Your task to perform on an android device: open chrome privacy settings Image 0: 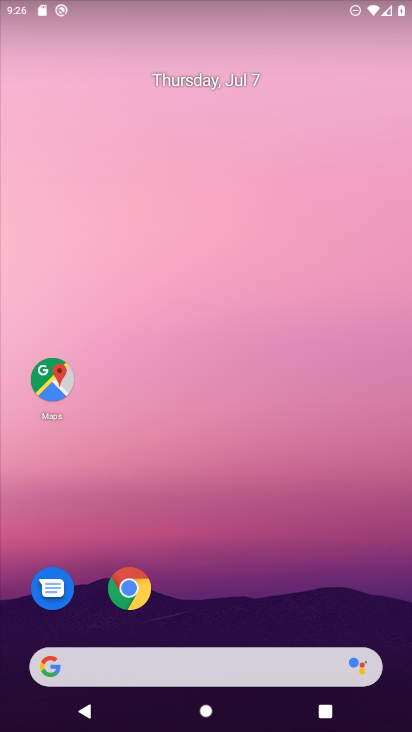
Step 0: click (139, 587)
Your task to perform on an android device: open chrome privacy settings Image 1: 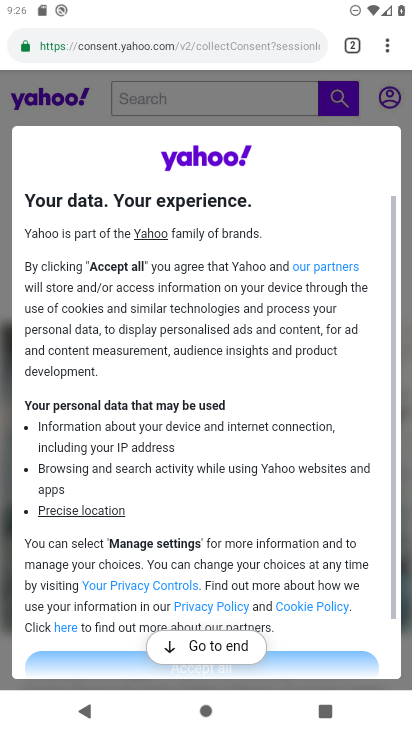
Step 1: click (396, 51)
Your task to perform on an android device: open chrome privacy settings Image 2: 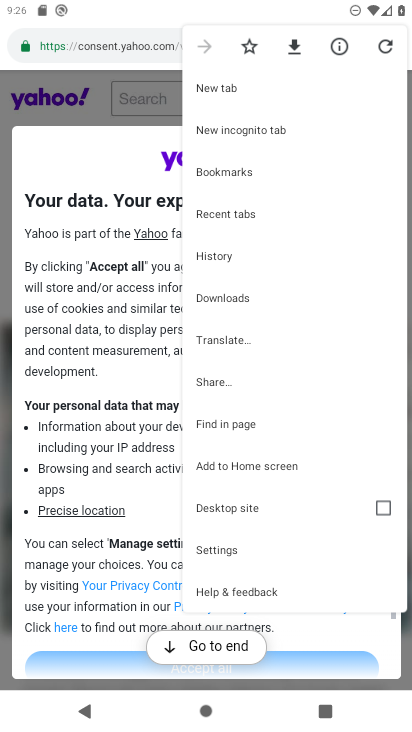
Step 2: click (240, 540)
Your task to perform on an android device: open chrome privacy settings Image 3: 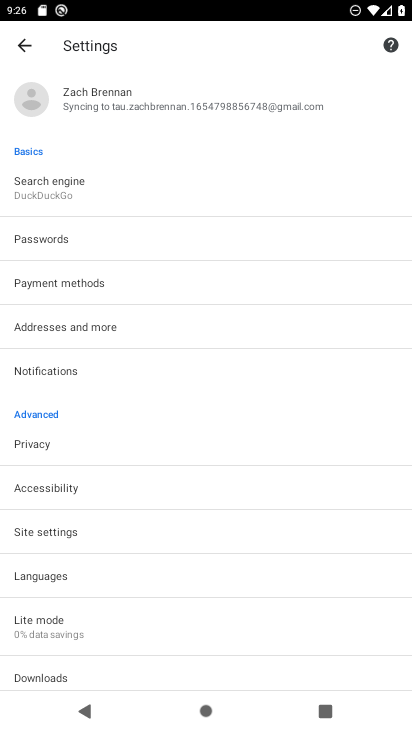
Step 3: click (93, 441)
Your task to perform on an android device: open chrome privacy settings Image 4: 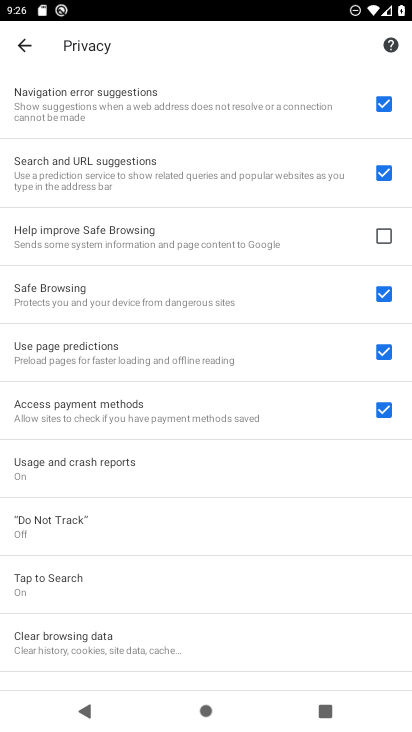
Step 4: task complete